Your task to perform on an android device: Is it going to rain today? Image 0: 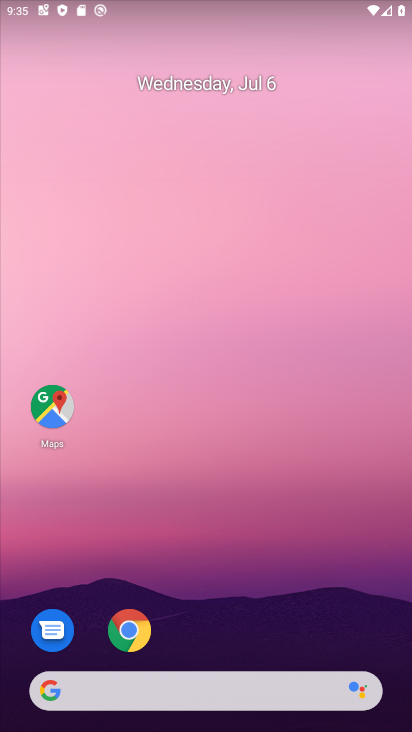
Step 0: click (234, 680)
Your task to perform on an android device: Is it going to rain today? Image 1: 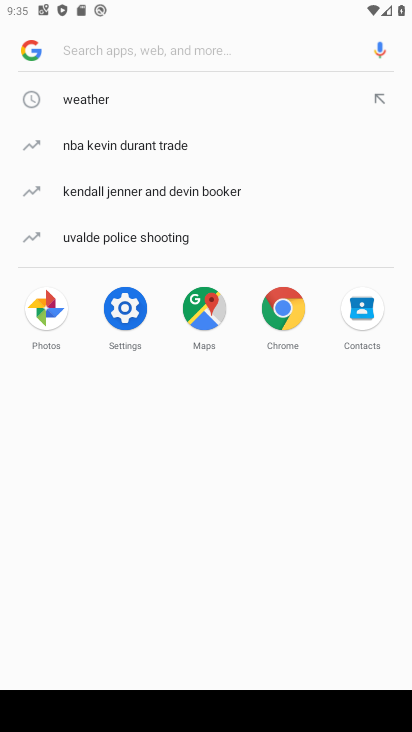
Step 1: click (83, 98)
Your task to perform on an android device: Is it going to rain today? Image 2: 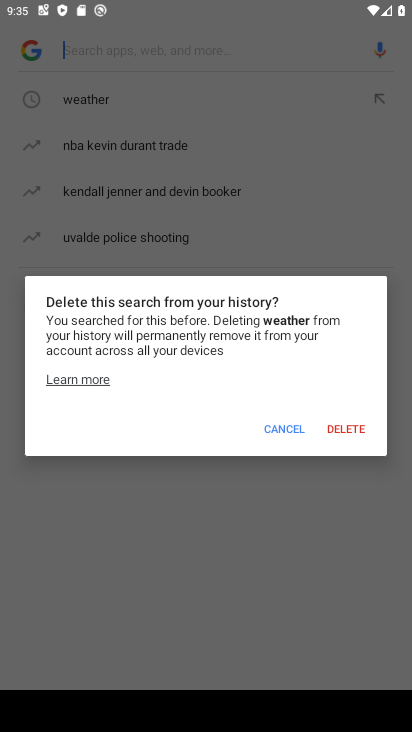
Step 2: click (283, 428)
Your task to perform on an android device: Is it going to rain today? Image 3: 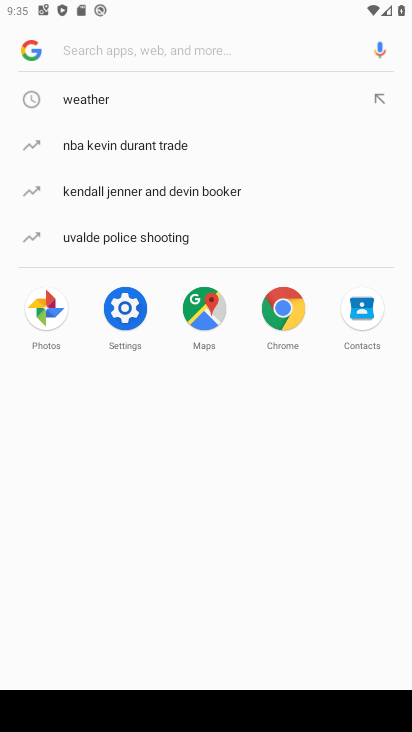
Step 3: click (71, 94)
Your task to perform on an android device: Is it going to rain today? Image 4: 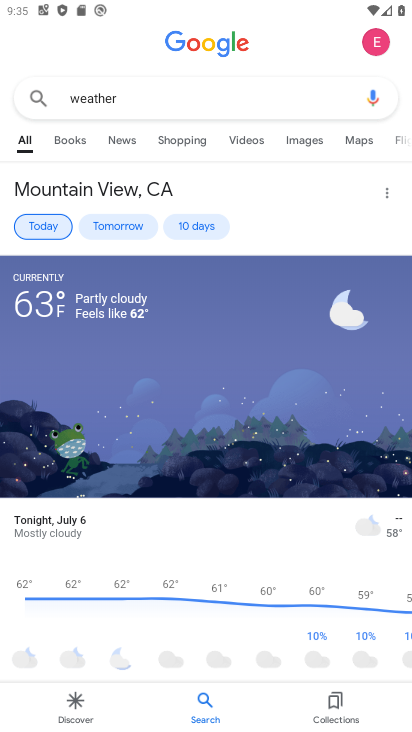
Step 4: task complete